Your task to perform on an android device: Go to accessibility settings Image 0: 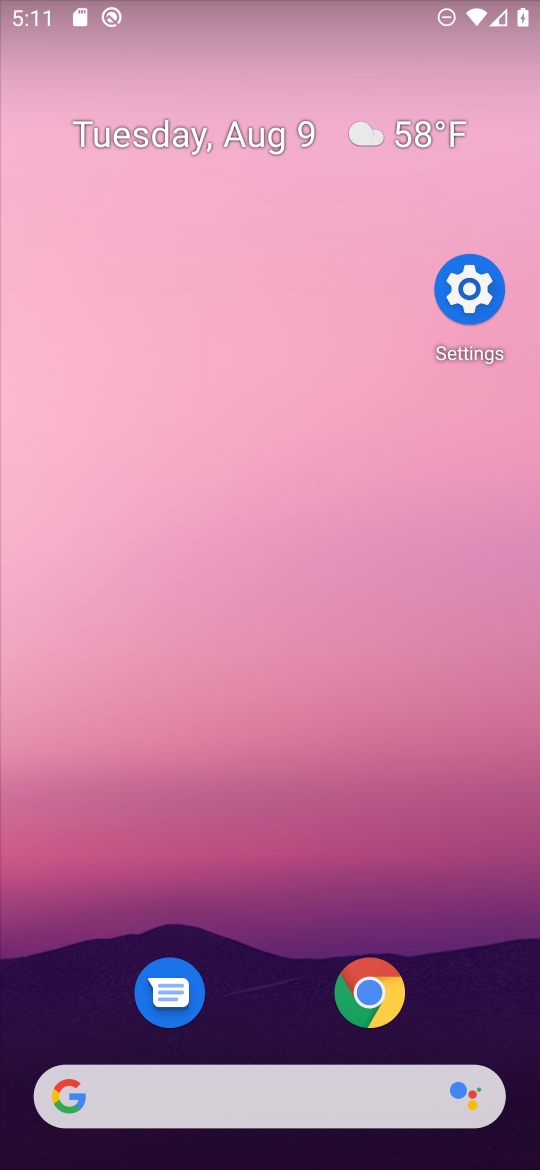
Step 0: drag from (406, 1094) to (297, 176)
Your task to perform on an android device: Go to accessibility settings Image 1: 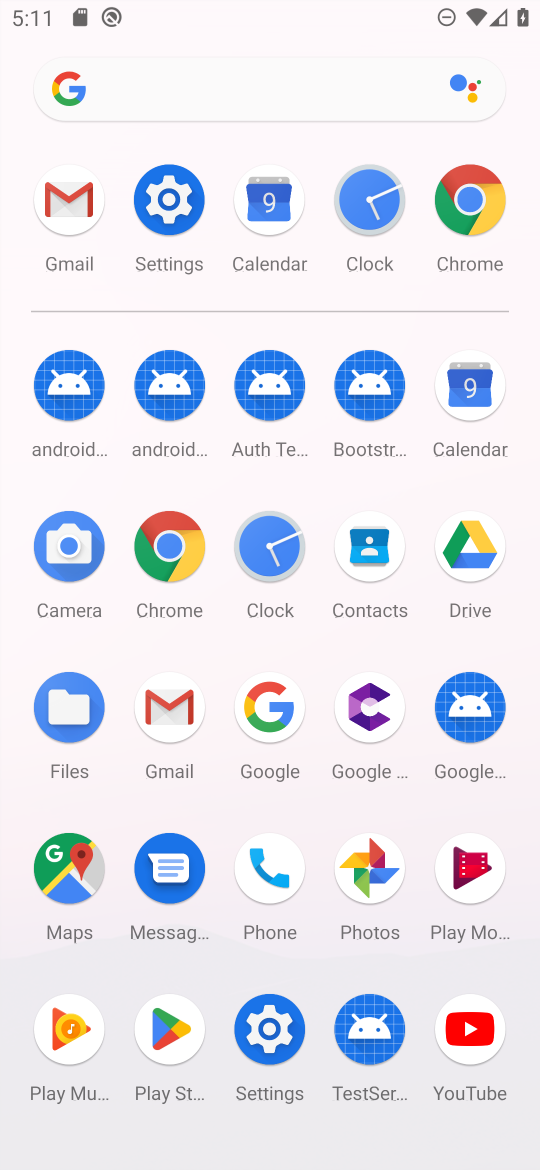
Step 1: click (174, 201)
Your task to perform on an android device: Go to accessibility settings Image 2: 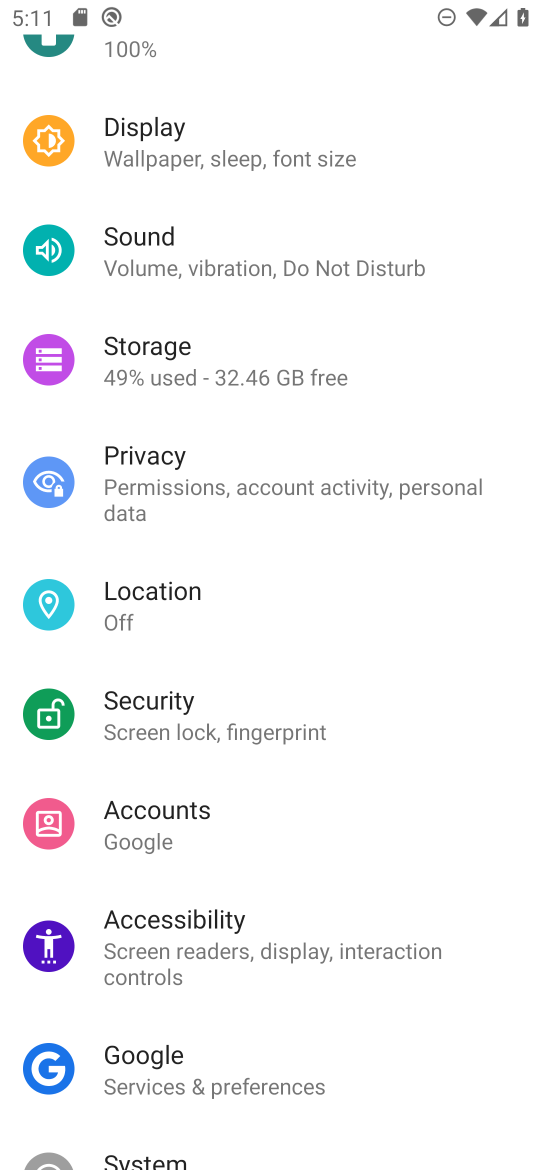
Step 2: click (202, 933)
Your task to perform on an android device: Go to accessibility settings Image 3: 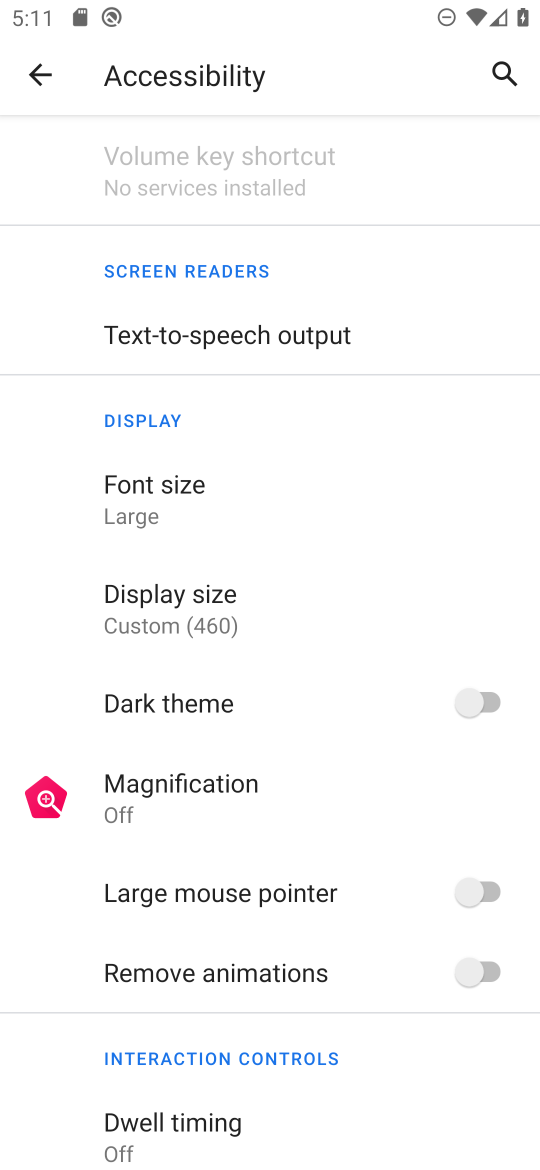
Step 3: task complete